Your task to perform on an android device: delete a single message in the gmail app Image 0: 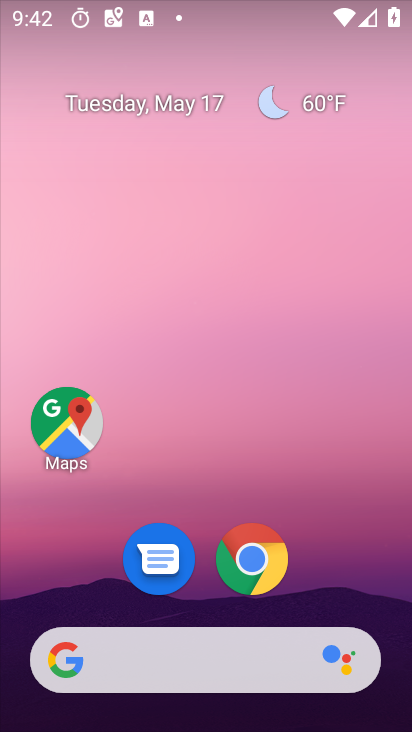
Step 0: drag from (264, 697) to (289, 124)
Your task to perform on an android device: delete a single message in the gmail app Image 1: 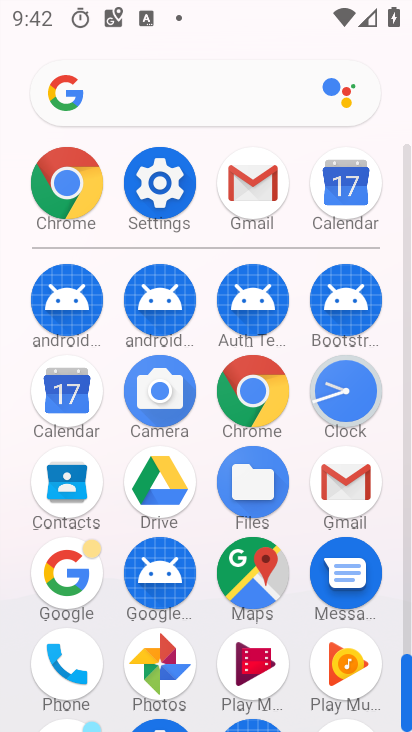
Step 1: click (344, 474)
Your task to perform on an android device: delete a single message in the gmail app Image 2: 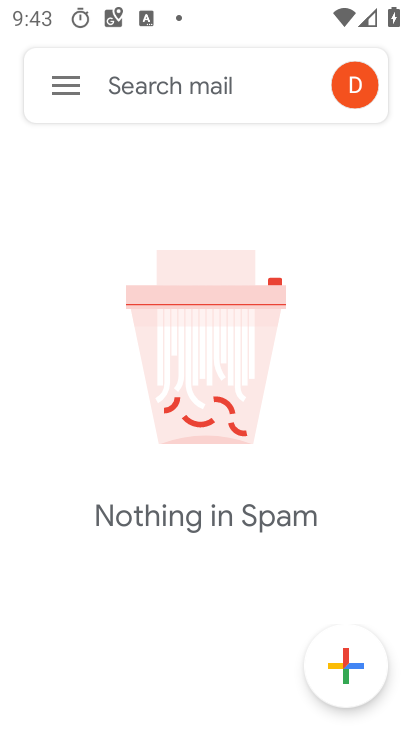
Step 2: click (78, 89)
Your task to perform on an android device: delete a single message in the gmail app Image 3: 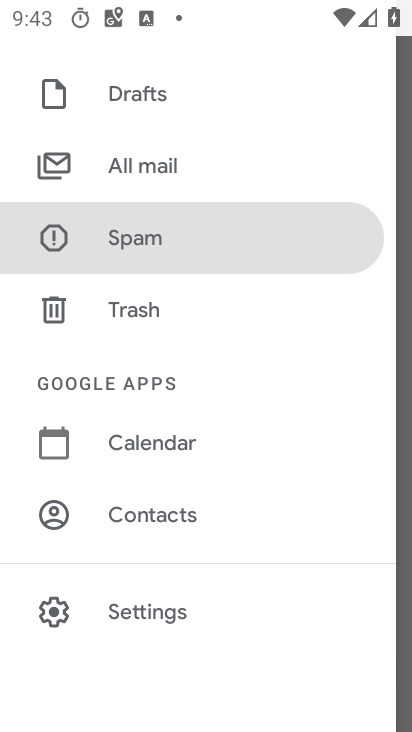
Step 3: click (226, 171)
Your task to perform on an android device: delete a single message in the gmail app Image 4: 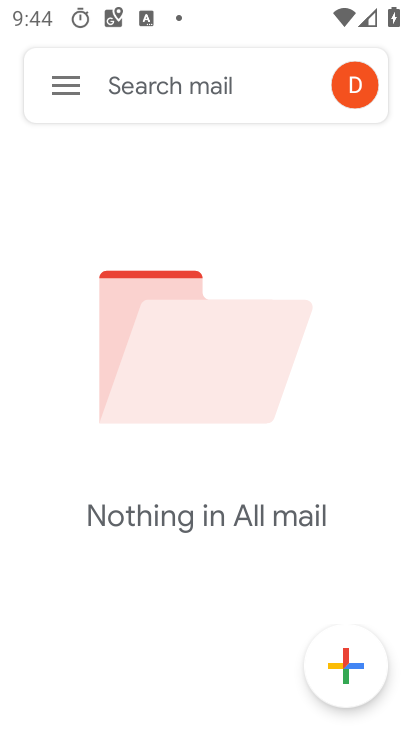
Step 4: task complete